Your task to perform on an android device: check android version Image 0: 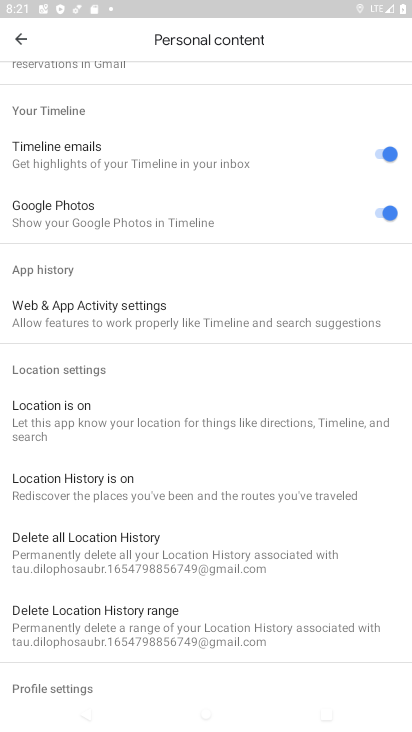
Step 0: press home button
Your task to perform on an android device: check android version Image 1: 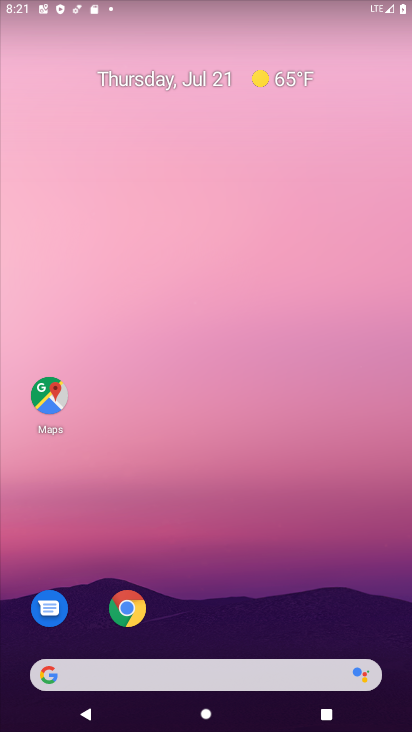
Step 1: drag from (207, 678) to (313, 201)
Your task to perform on an android device: check android version Image 2: 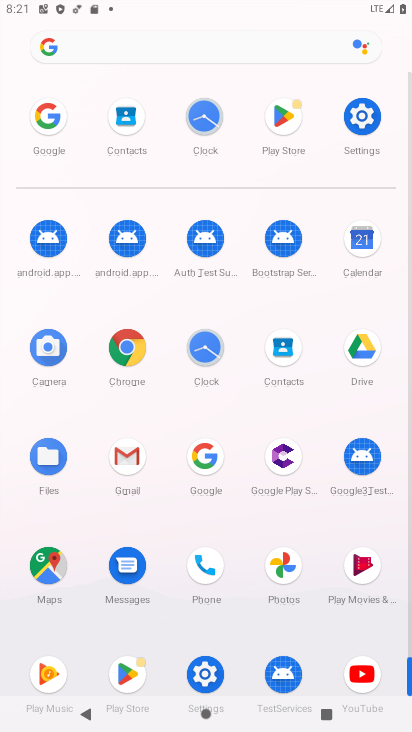
Step 2: click (360, 113)
Your task to perform on an android device: check android version Image 3: 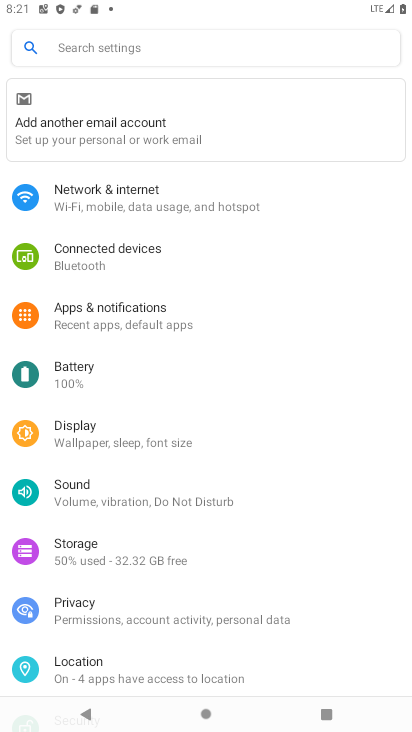
Step 3: drag from (159, 414) to (240, 271)
Your task to perform on an android device: check android version Image 4: 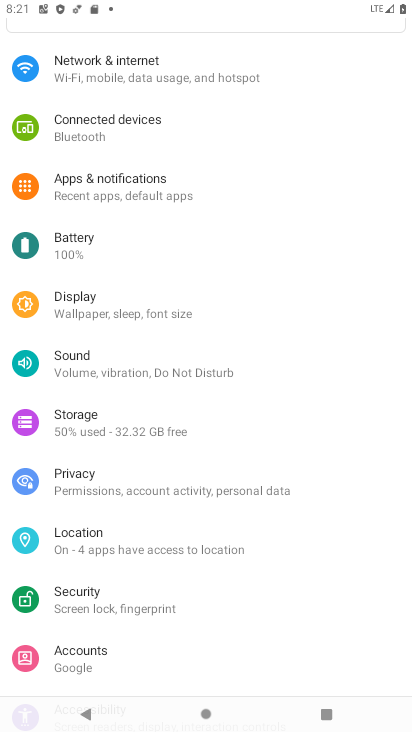
Step 4: drag from (107, 569) to (202, 435)
Your task to perform on an android device: check android version Image 5: 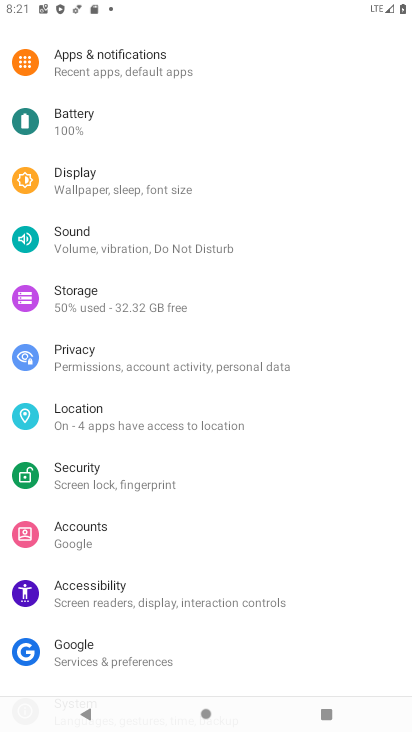
Step 5: drag from (142, 536) to (216, 415)
Your task to perform on an android device: check android version Image 6: 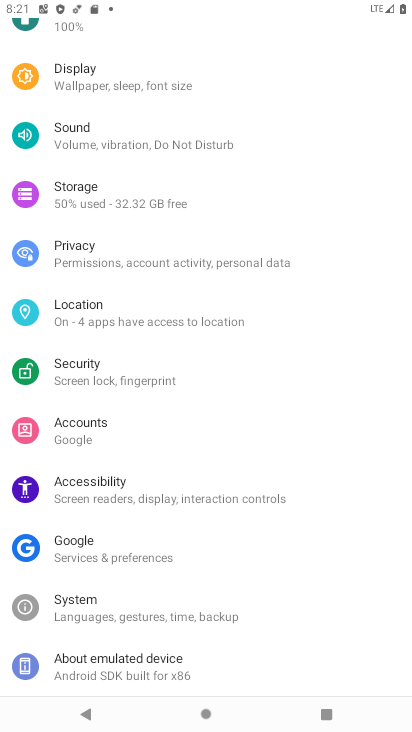
Step 6: click (138, 664)
Your task to perform on an android device: check android version Image 7: 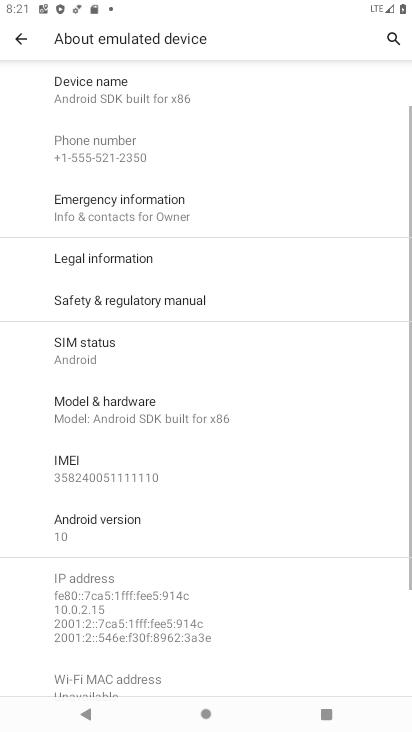
Step 7: click (124, 516)
Your task to perform on an android device: check android version Image 8: 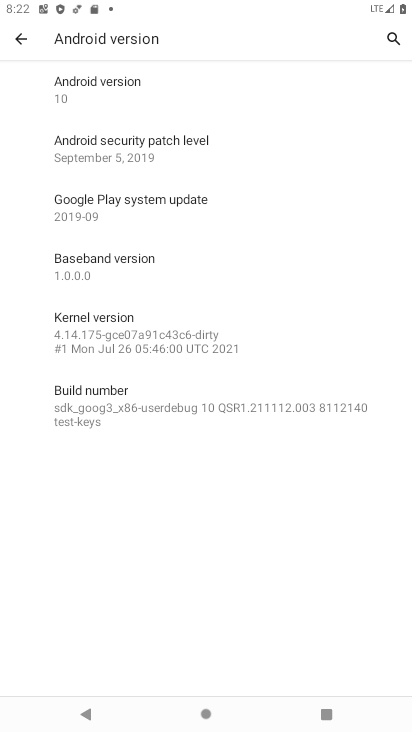
Step 8: task complete